Your task to perform on an android device: turn notification dots on Image 0: 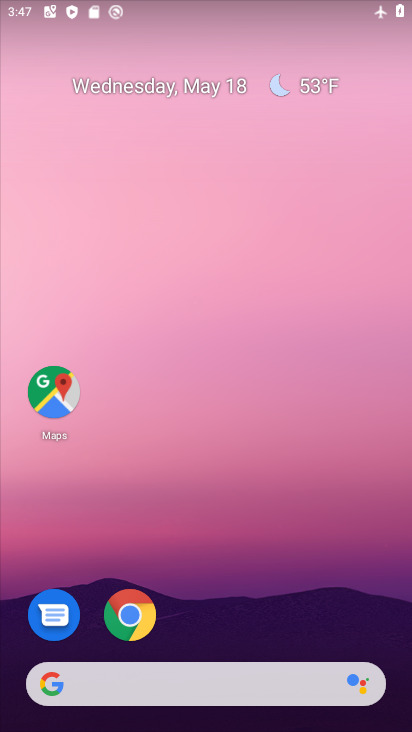
Step 0: drag from (260, 586) to (241, 155)
Your task to perform on an android device: turn notification dots on Image 1: 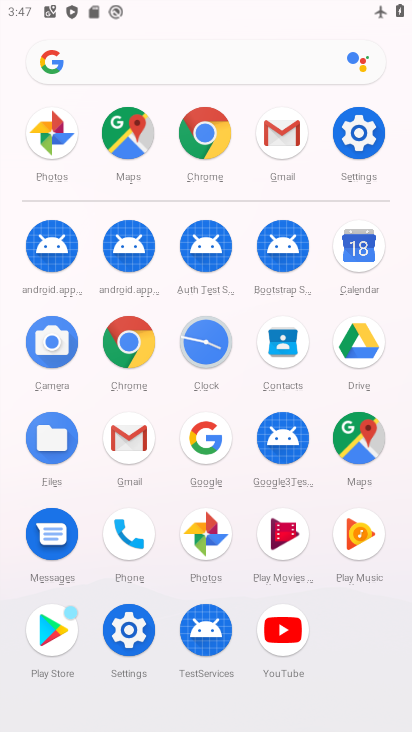
Step 1: click (368, 125)
Your task to perform on an android device: turn notification dots on Image 2: 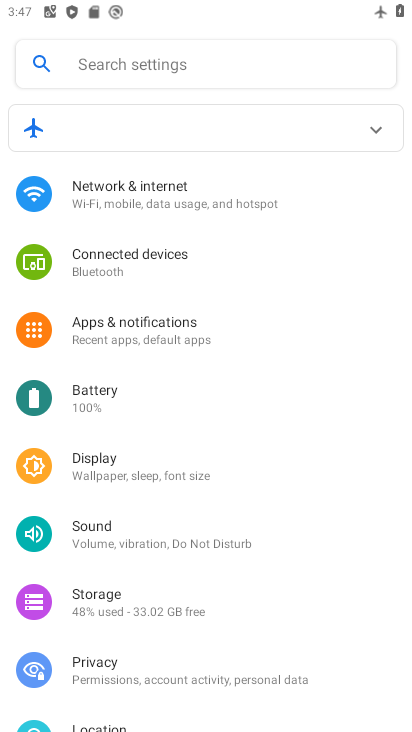
Step 2: click (146, 335)
Your task to perform on an android device: turn notification dots on Image 3: 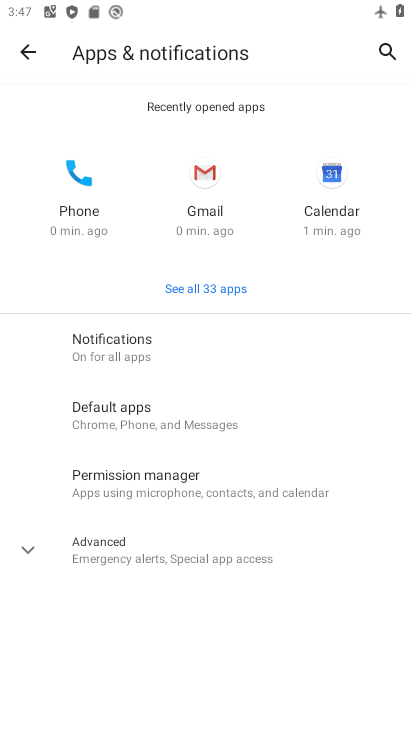
Step 3: click (144, 339)
Your task to perform on an android device: turn notification dots on Image 4: 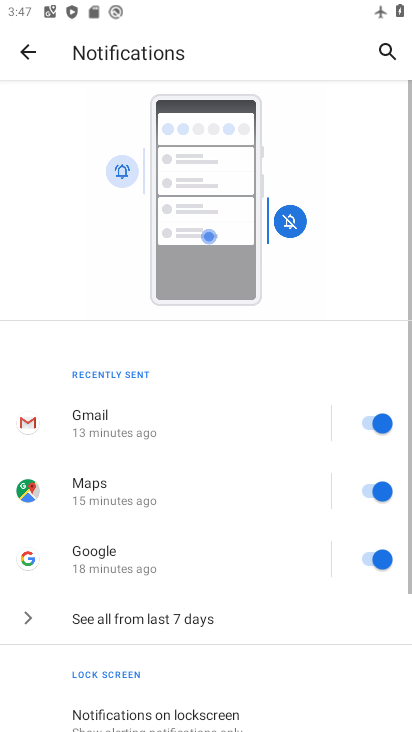
Step 4: drag from (208, 707) to (315, 138)
Your task to perform on an android device: turn notification dots on Image 5: 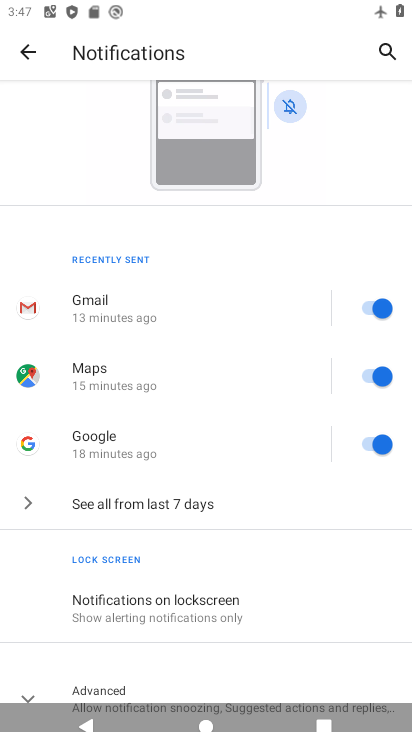
Step 5: drag from (202, 662) to (327, 264)
Your task to perform on an android device: turn notification dots on Image 6: 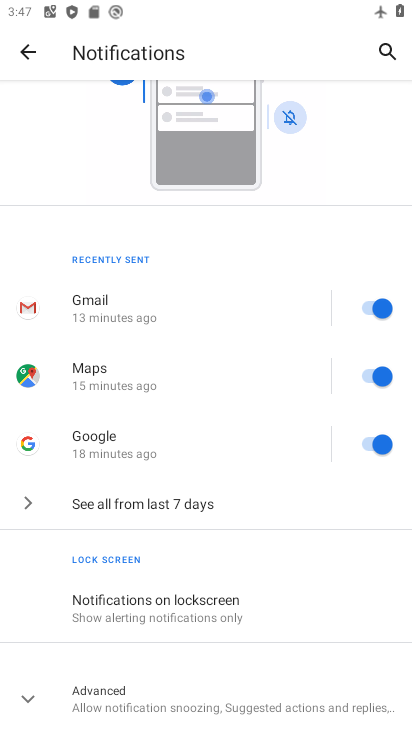
Step 6: click (126, 698)
Your task to perform on an android device: turn notification dots on Image 7: 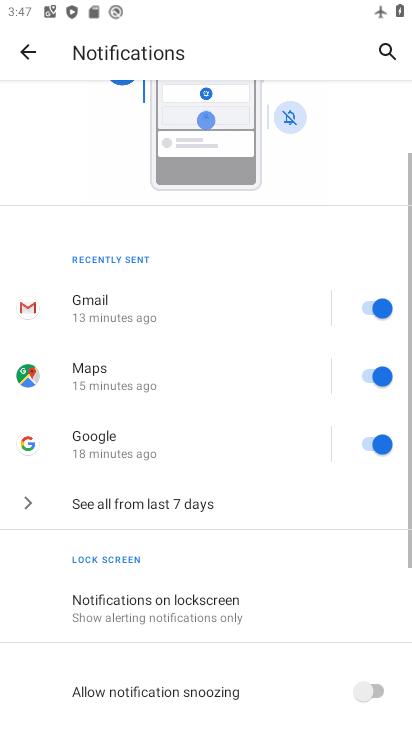
Step 7: task complete